Your task to perform on an android device: check android version Image 0: 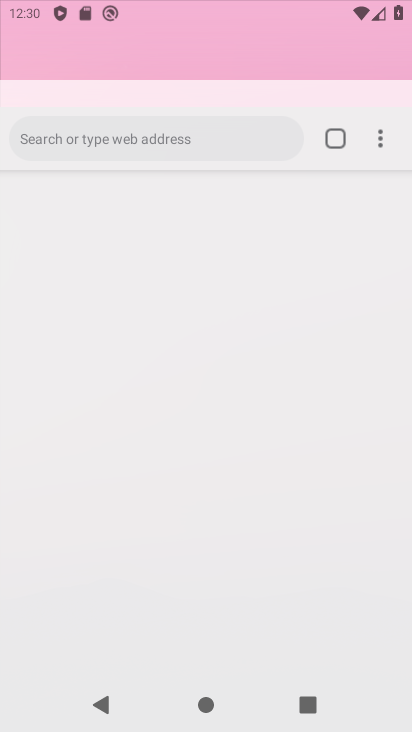
Step 0: click (311, 97)
Your task to perform on an android device: check android version Image 1: 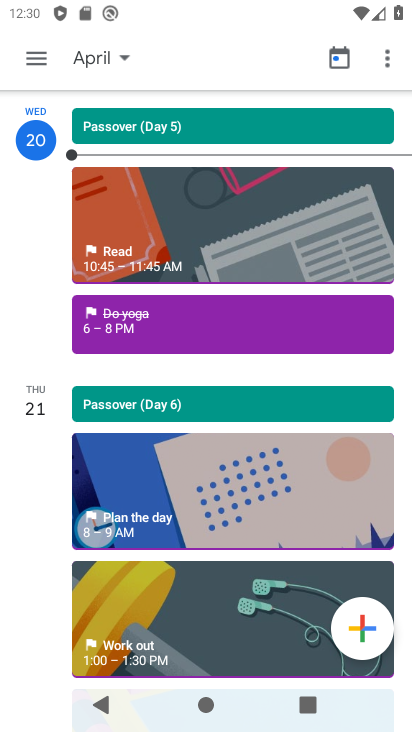
Step 1: press back button
Your task to perform on an android device: check android version Image 2: 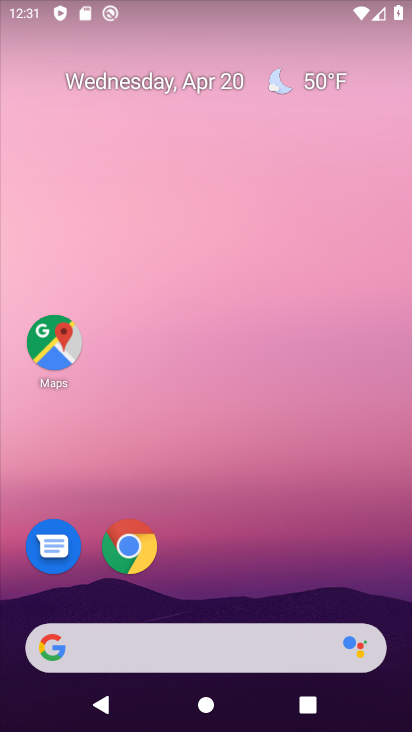
Step 2: drag from (228, 583) to (280, 88)
Your task to perform on an android device: check android version Image 3: 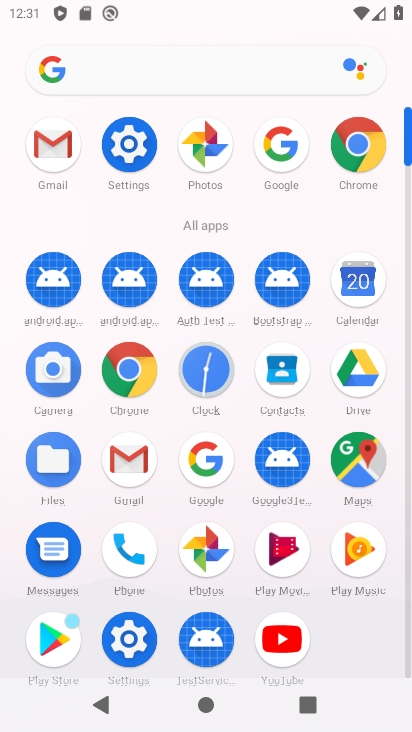
Step 3: click (135, 137)
Your task to perform on an android device: check android version Image 4: 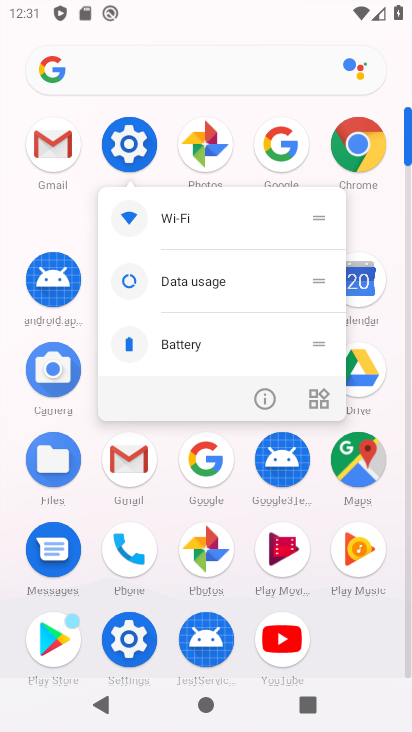
Step 4: click (133, 135)
Your task to perform on an android device: check android version Image 5: 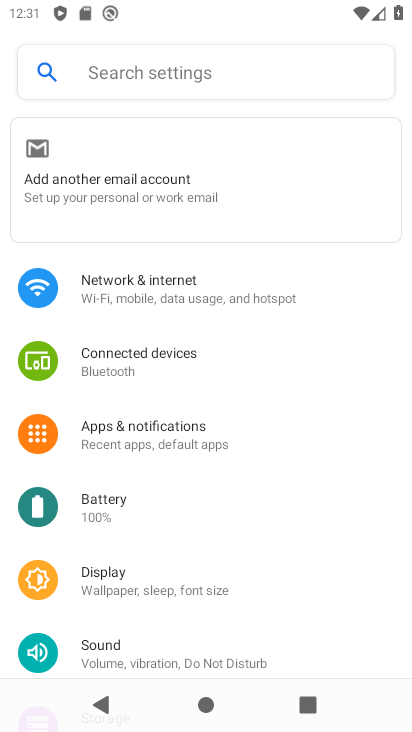
Step 5: drag from (175, 635) to (300, 31)
Your task to perform on an android device: check android version Image 6: 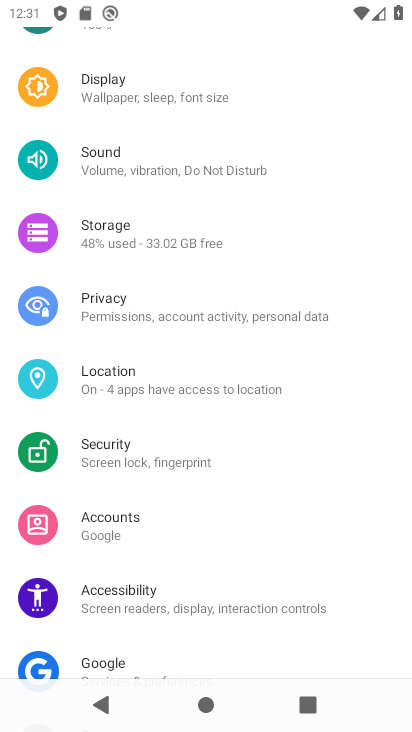
Step 6: drag from (155, 629) to (299, 78)
Your task to perform on an android device: check android version Image 7: 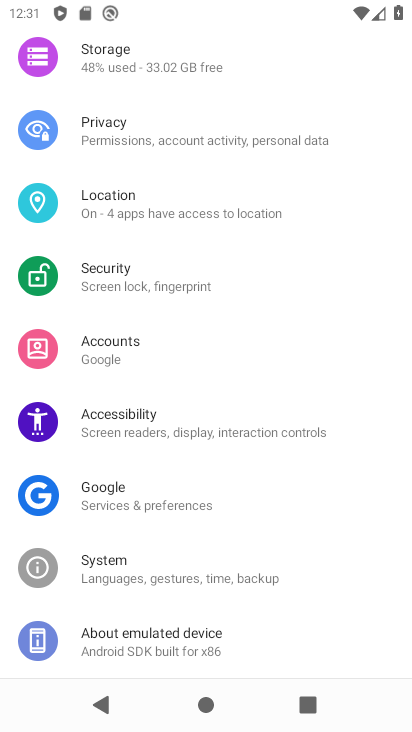
Step 7: click (173, 639)
Your task to perform on an android device: check android version Image 8: 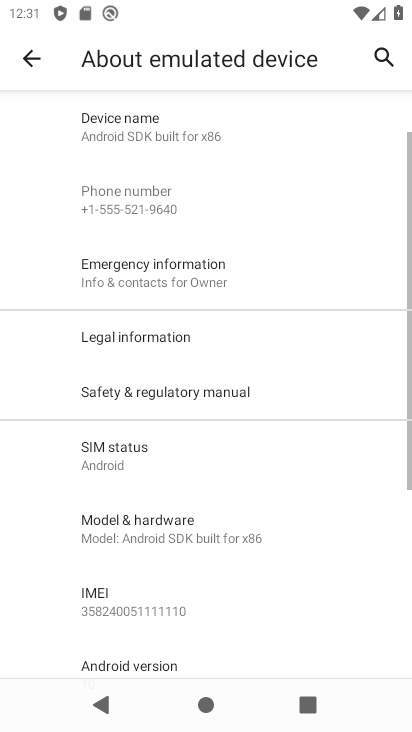
Step 8: drag from (156, 593) to (285, 163)
Your task to perform on an android device: check android version Image 9: 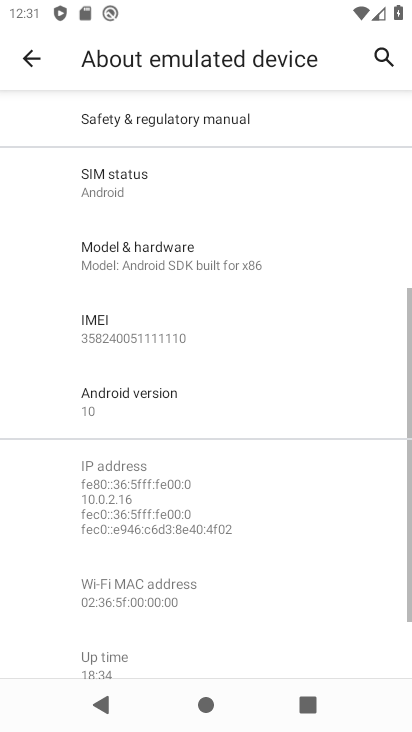
Step 9: click (156, 392)
Your task to perform on an android device: check android version Image 10: 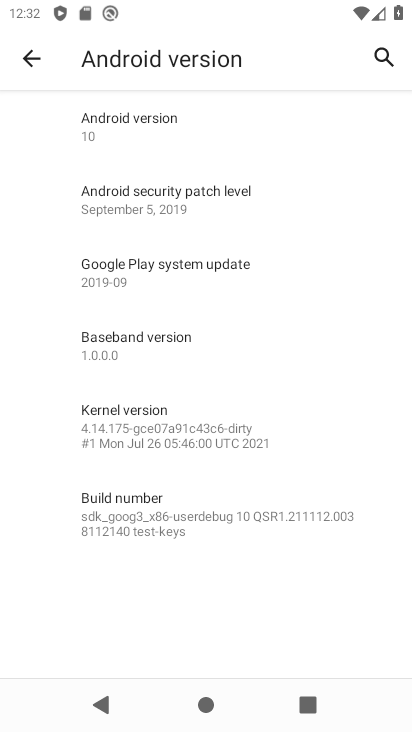
Step 10: click (94, 113)
Your task to perform on an android device: check android version Image 11: 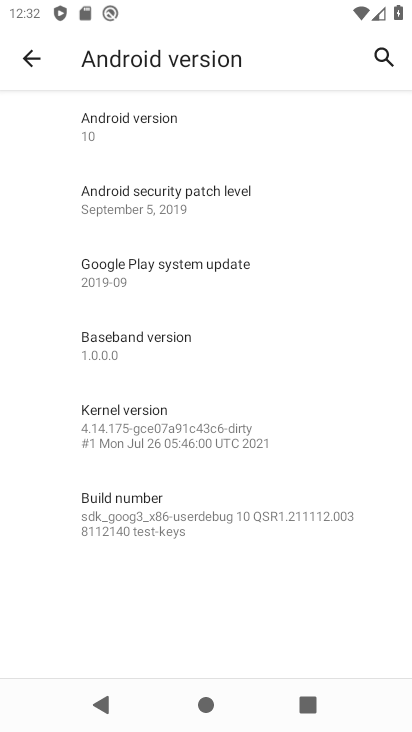
Step 11: task complete